Your task to perform on an android device: Go to network settings Image 0: 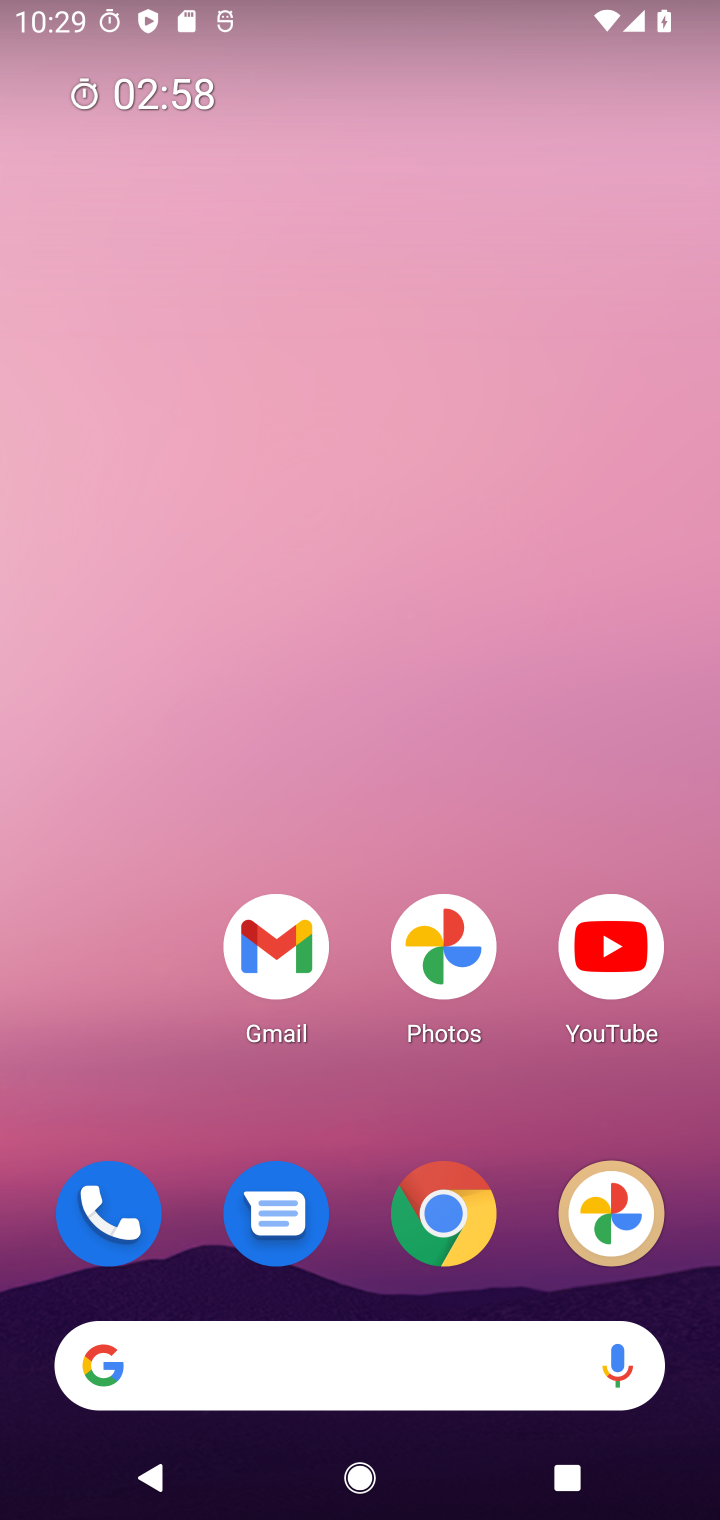
Step 0: drag from (302, 1131) to (420, 239)
Your task to perform on an android device: Go to network settings Image 1: 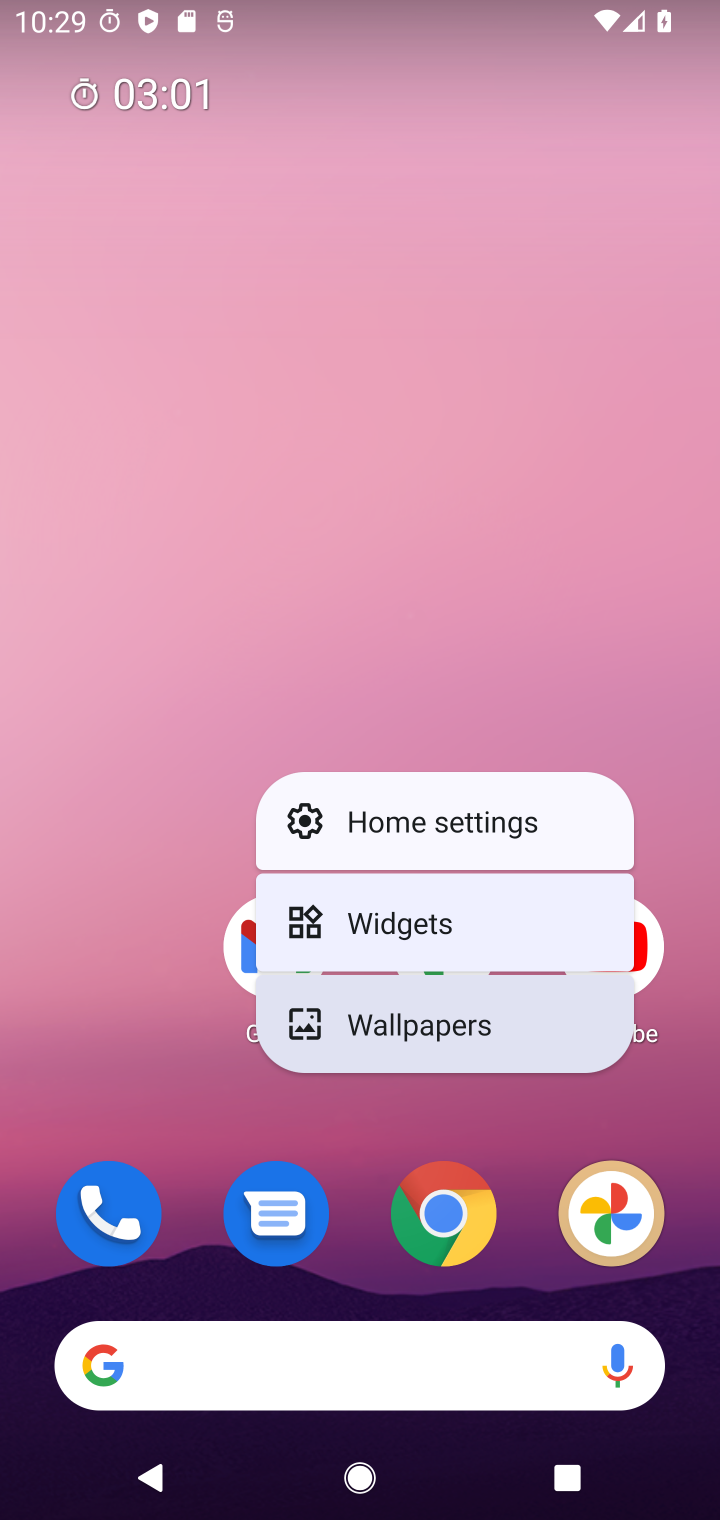
Step 1: click (342, 1154)
Your task to perform on an android device: Go to network settings Image 2: 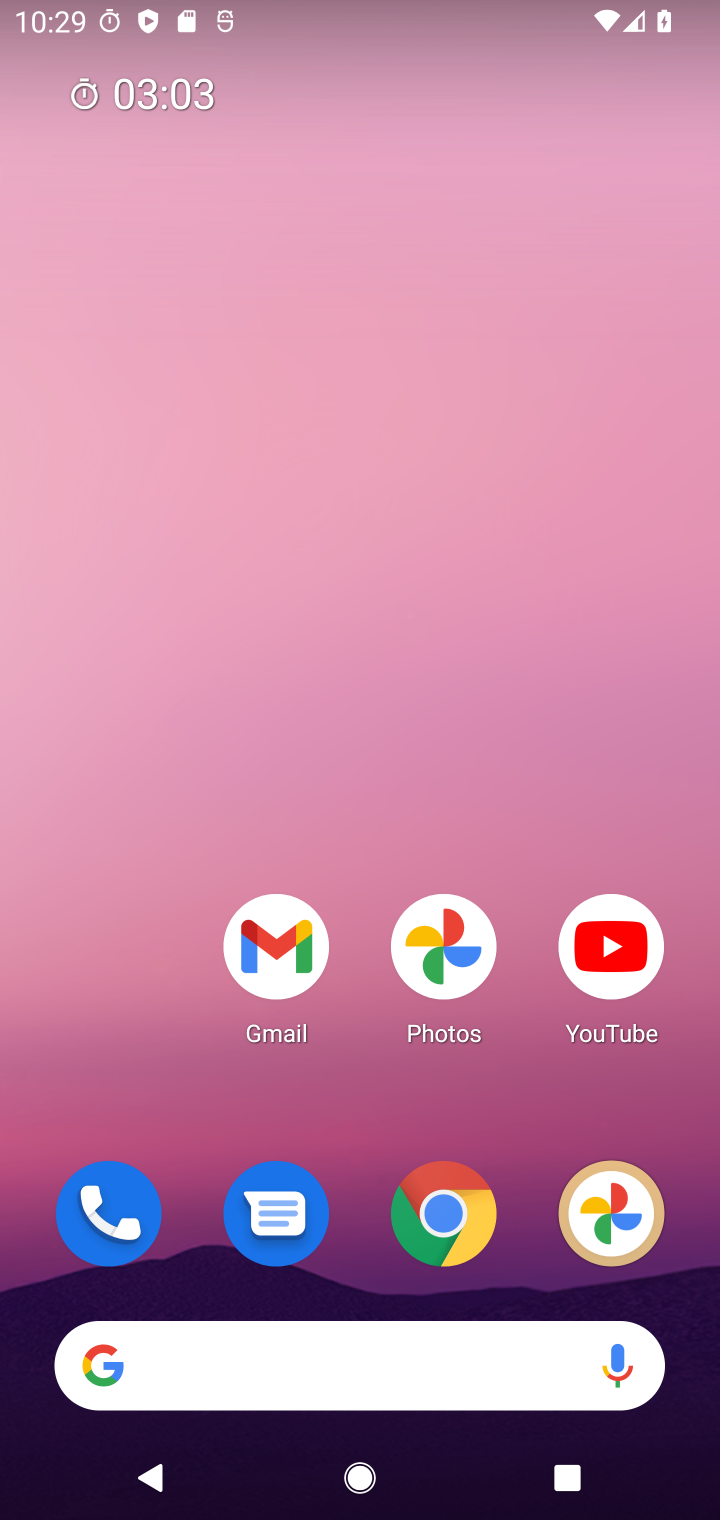
Step 2: drag from (360, 1150) to (296, 260)
Your task to perform on an android device: Go to network settings Image 3: 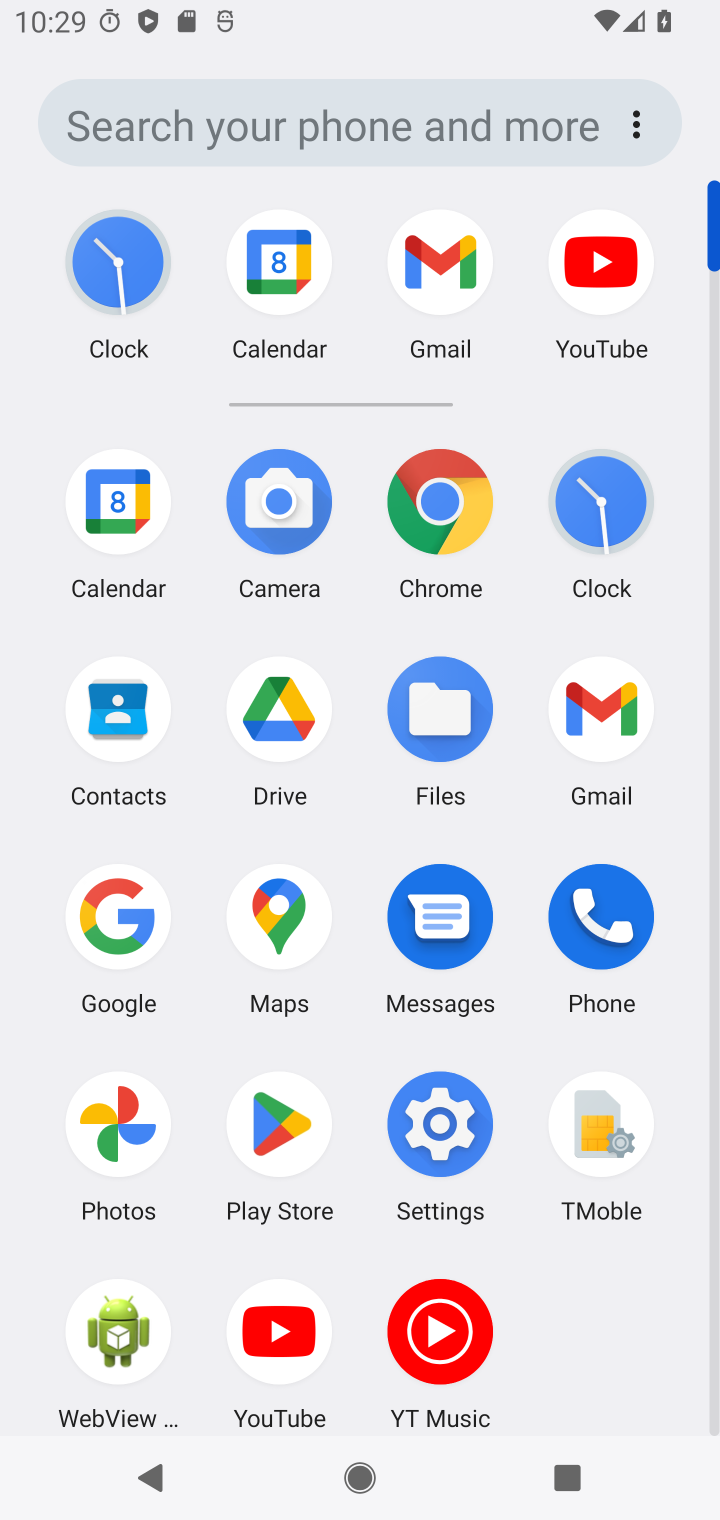
Step 3: click (474, 1164)
Your task to perform on an android device: Go to network settings Image 4: 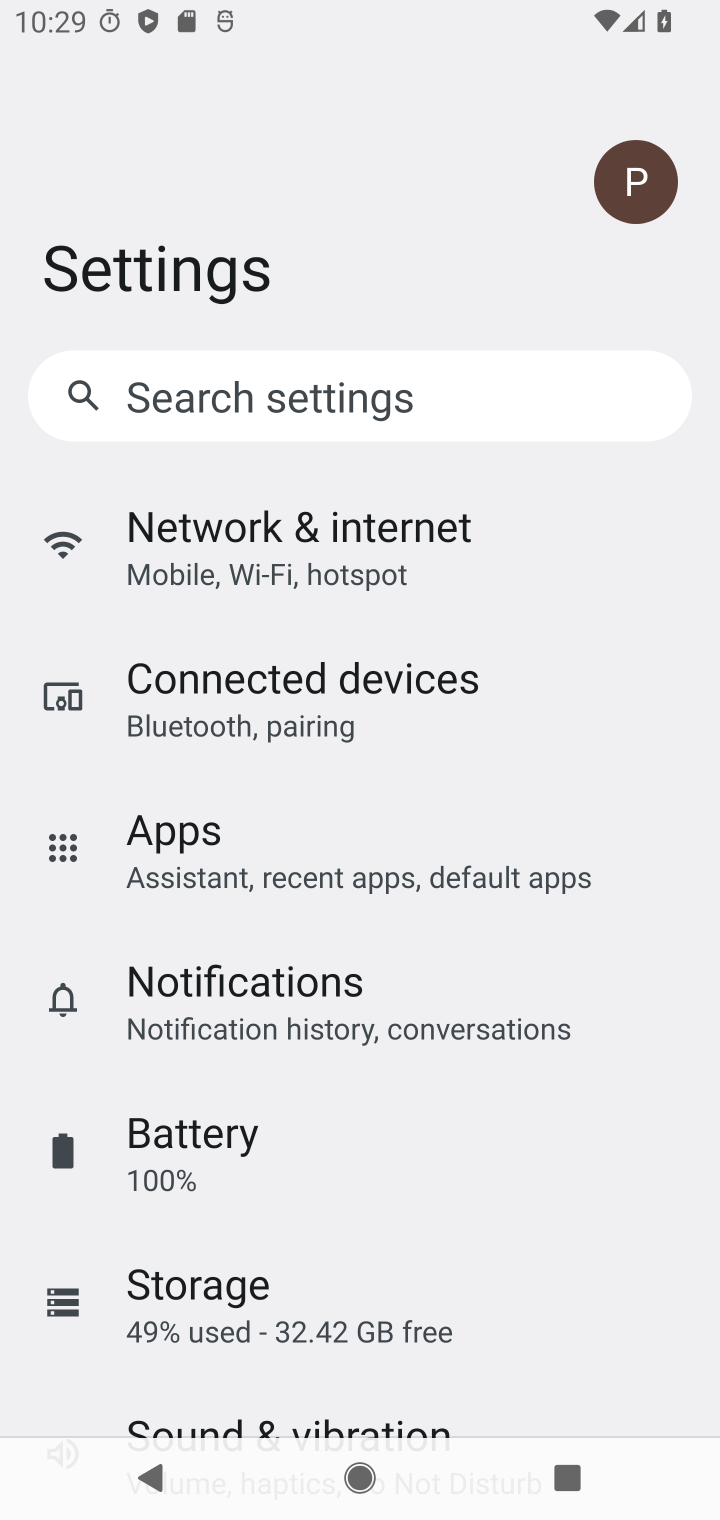
Step 4: click (352, 533)
Your task to perform on an android device: Go to network settings Image 5: 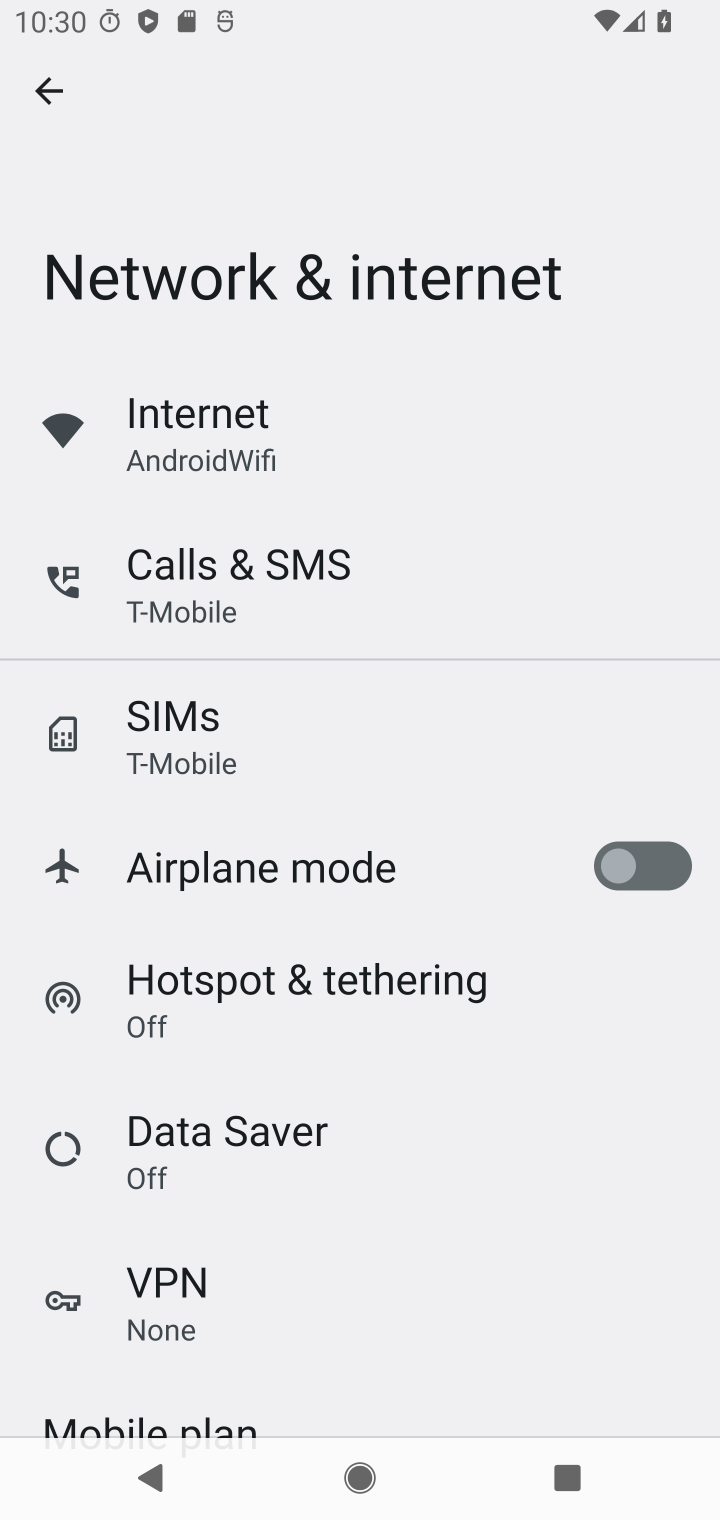
Step 5: click (365, 412)
Your task to perform on an android device: Go to network settings Image 6: 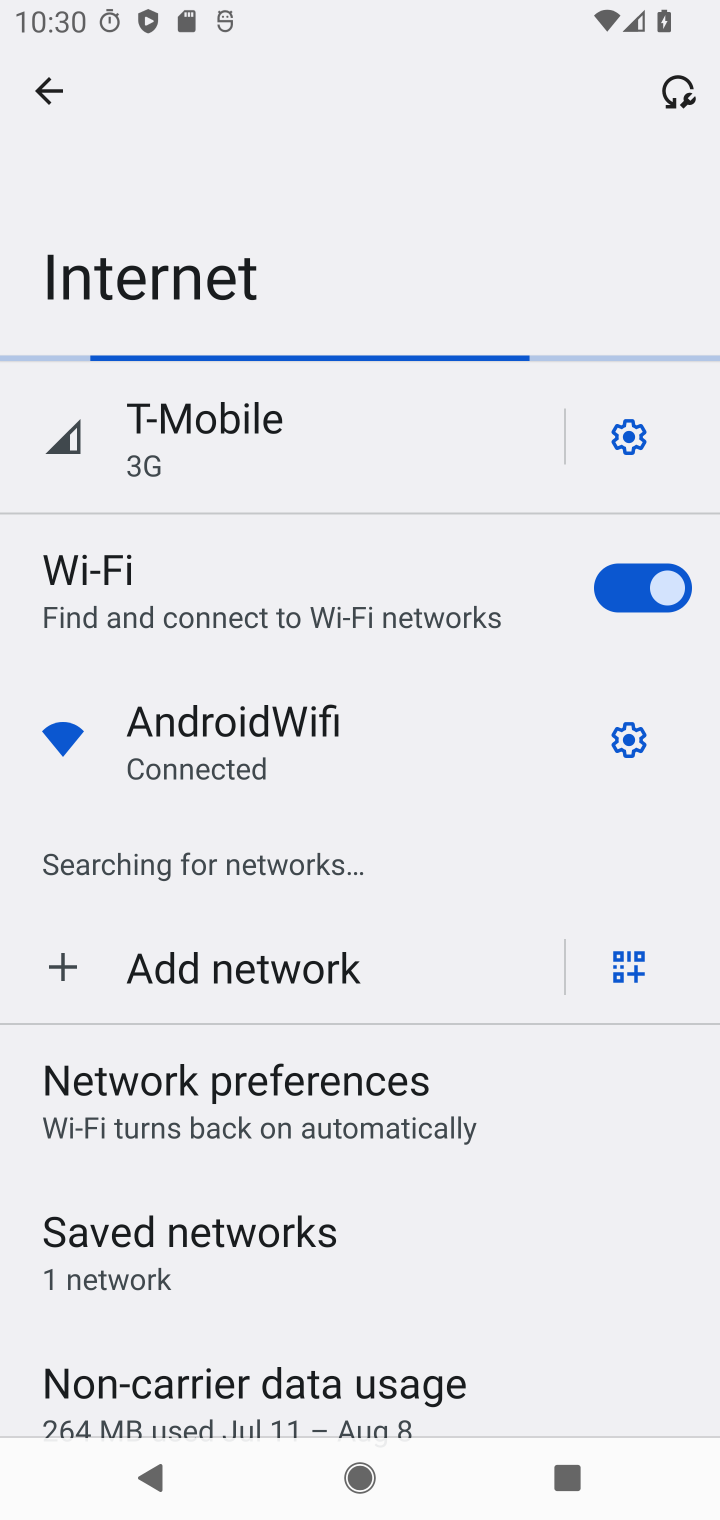
Step 6: click (287, 1092)
Your task to perform on an android device: Go to network settings Image 7: 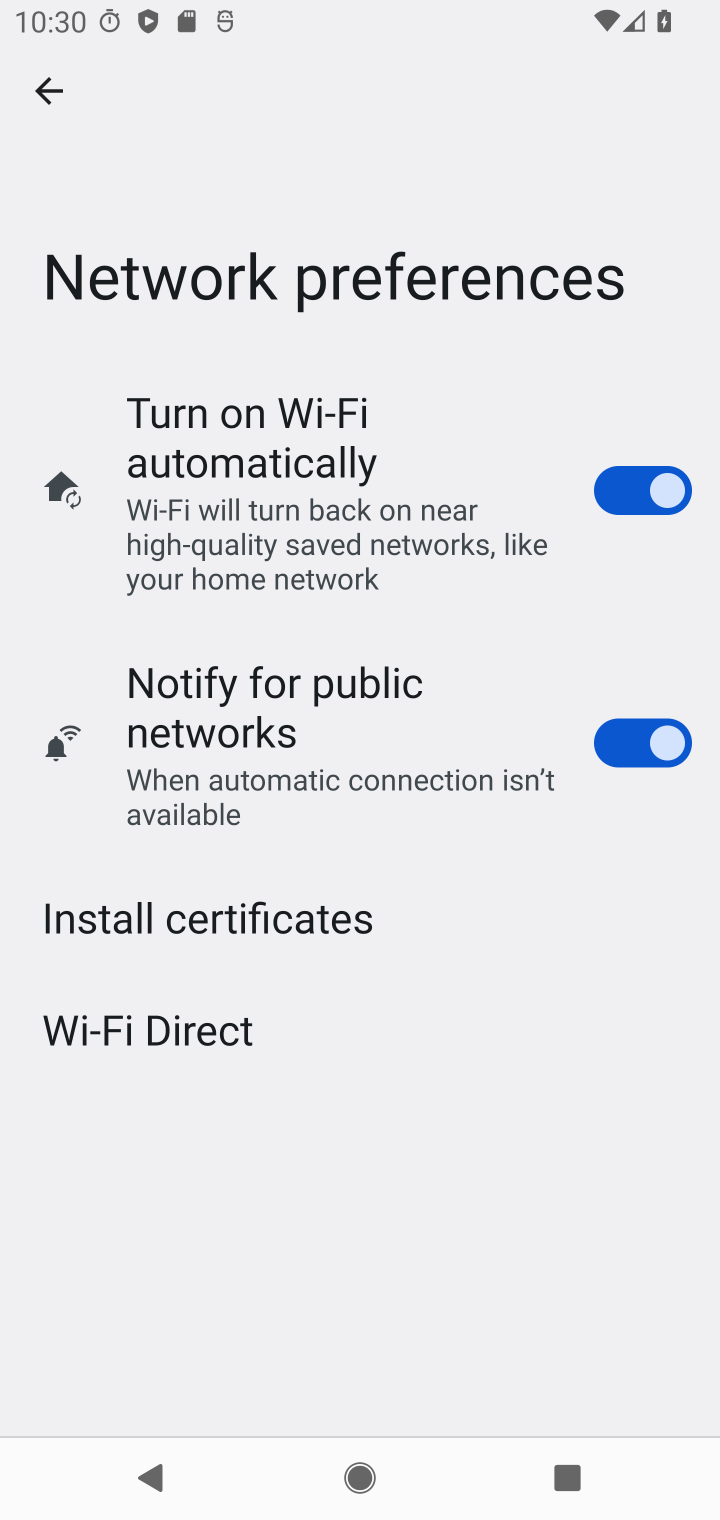
Step 7: task complete